Your task to perform on an android device: What's the weather going to be this weekend? Image 0: 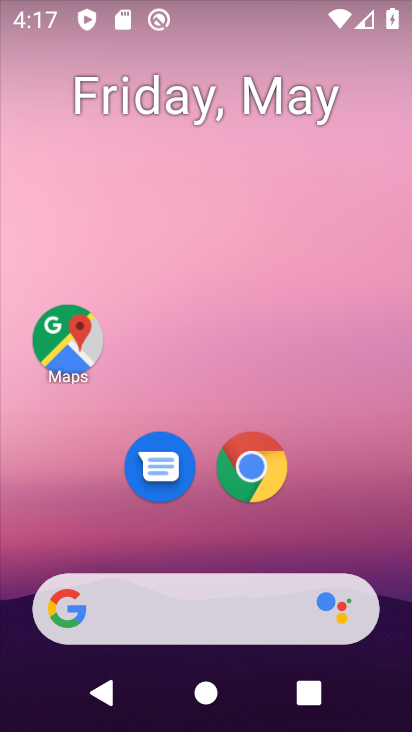
Step 0: drag from (352, 523) to (357, 77)
Your task to perform on an android device: What's the weather going to be this weekend? Image 1: 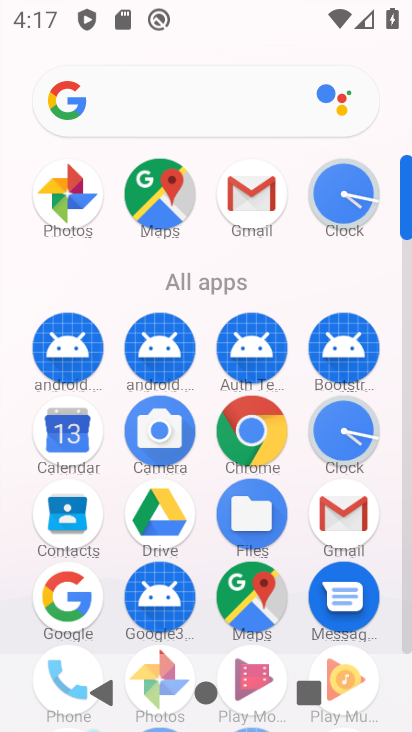
Step 1: click (250, 432)
Your task to perform on an android device: What's the weather going to be this weekend? Image 2: 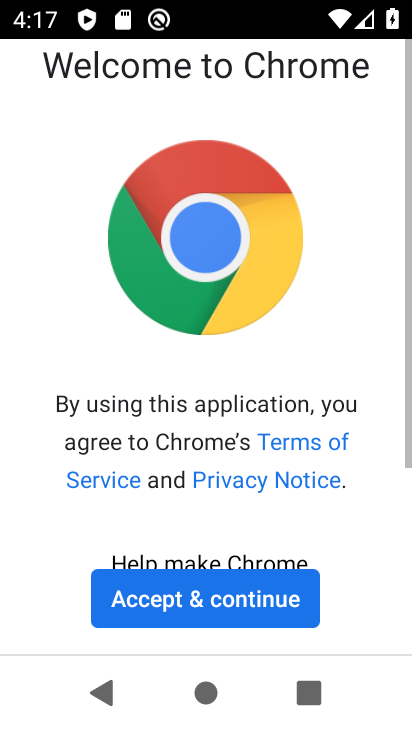
Step 2: click (252, 614)
Your task to perform on an android device: What's the weather going to be this weekend? Image 3: 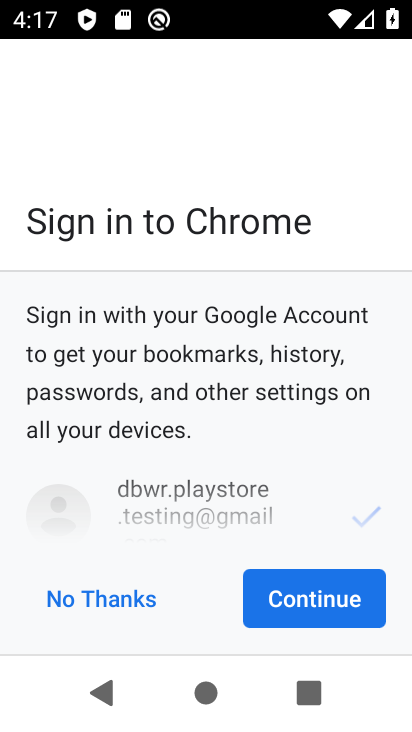
Step 3: click (312, 599)
Your task to perform on an android device: What's the weather going to be this weekend? Image 4: 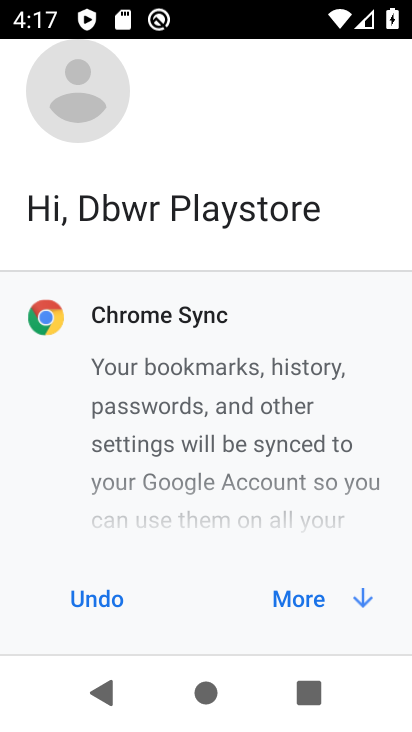
Step 4: click (312, 599)
Your task to perform on an android device: What's the weather going to be this weekend? Image 5: 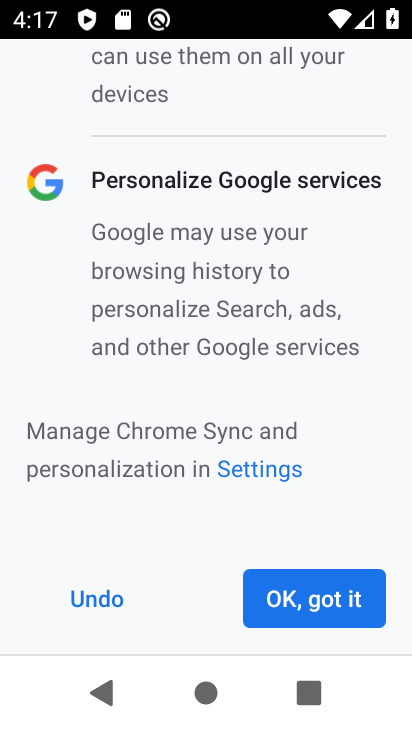
Step 5: click (312, 597)
Your task to perform on an android device: What's the weather going to be this weekend? Image 6: 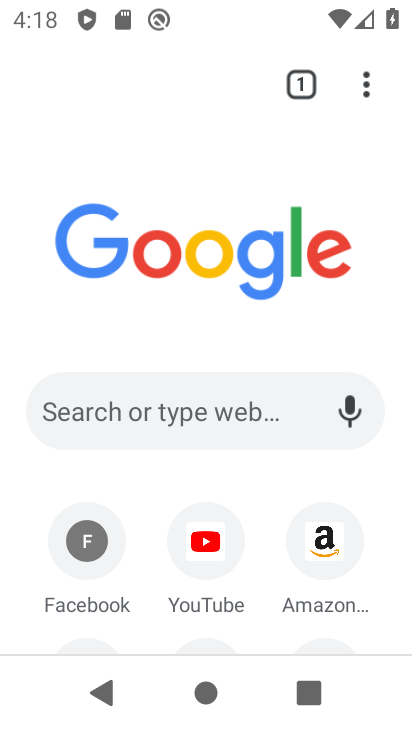
Step 6: click (240, 422)
Your task to perform on an android device: What's the weather going to be this weekend? Image 7: 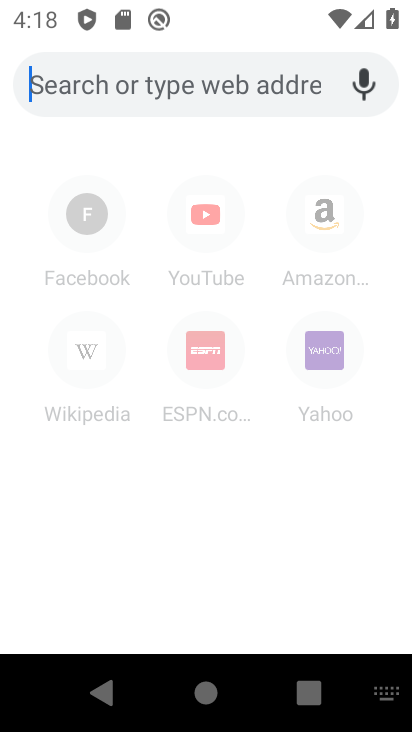
Step 7: type "weathher"
Your task to perform on an android device: What's the weather going to be this weekend? Image 8: 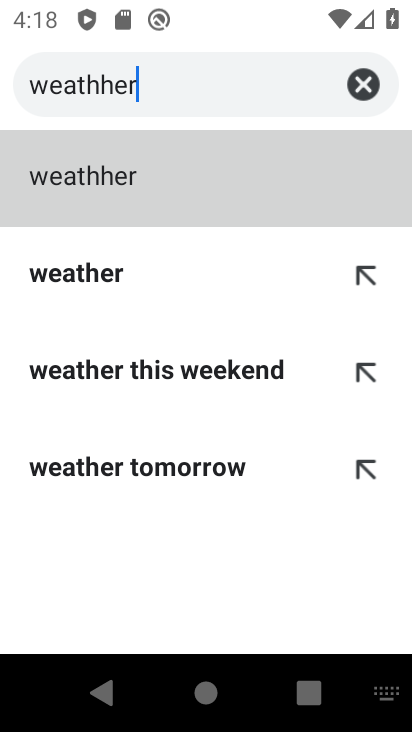
Step 8: click (112, 275)
Your task to perform on an android device: What's the weather going to be this weekend? Image 9: 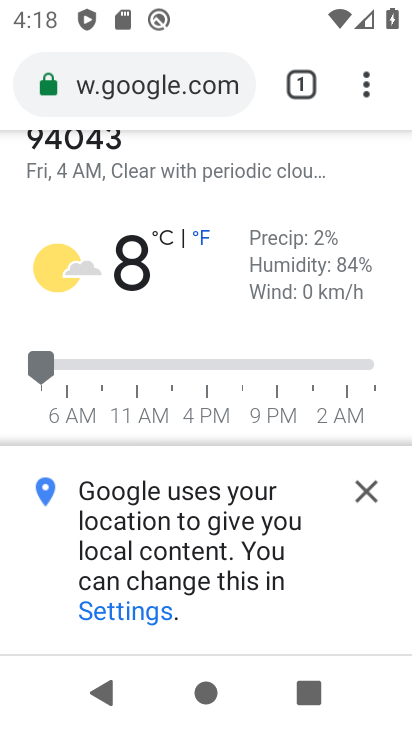
Step 9: drag from (258, 287) to (316, 65)
Your task to perform on an android device: What's the weather going to be this weekend? Image 10: 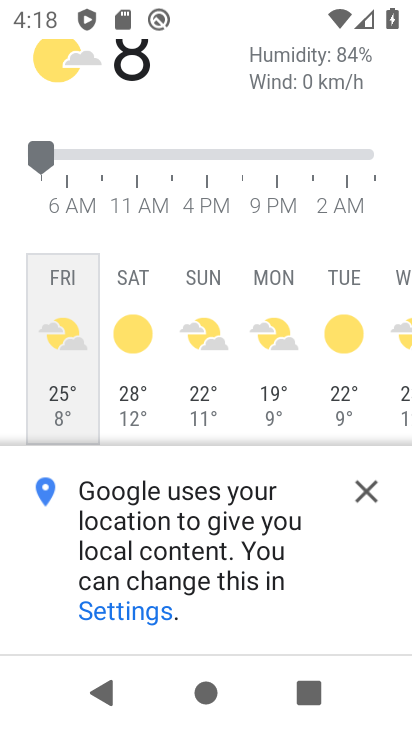
Step 10: click (136, 339)
Your task to perform on an android device: What's the weather going to be this weekend? Image 11: 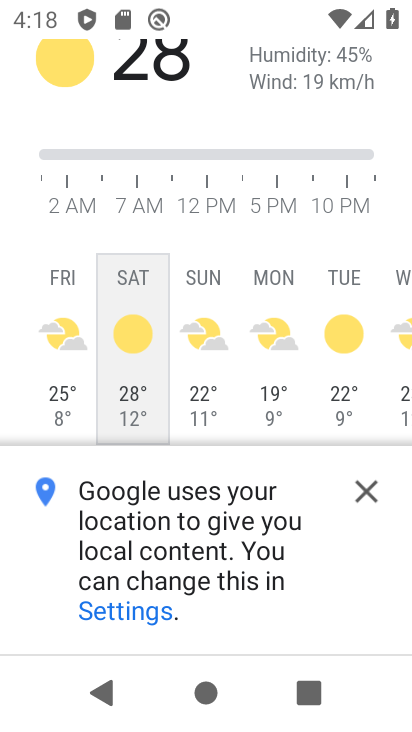
Step 11: task complete